Your task to perform on an android device: turn notification dots off Image 0: 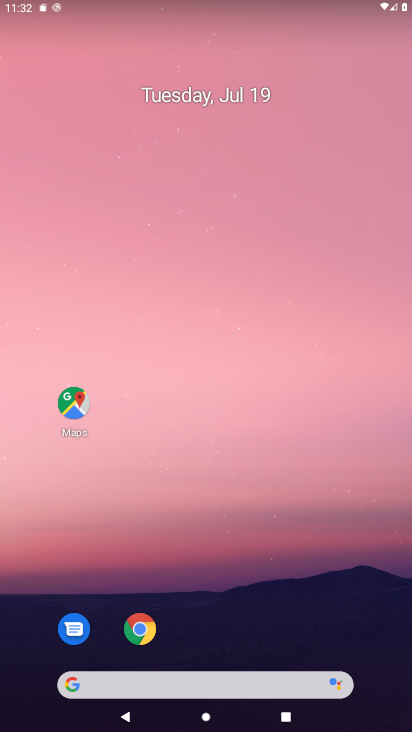
Step 0: drag from (354, 588) to (351, 105)
Your task to perform on an android device: turn notification dots off Image 1: 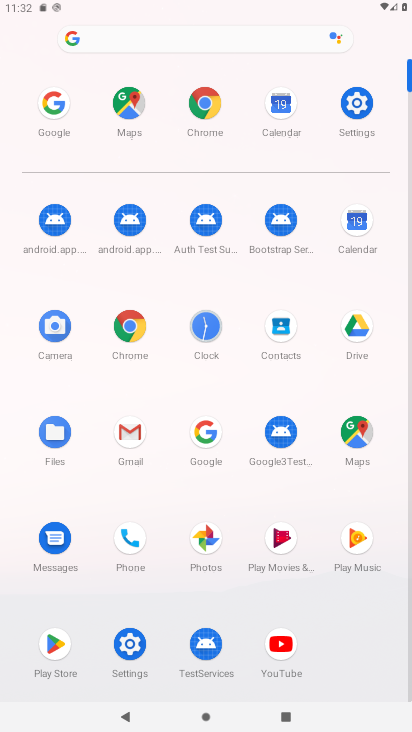
Step 1: click (362, 110)
Your task to perform on an android device: turn notification dots off Image 2: 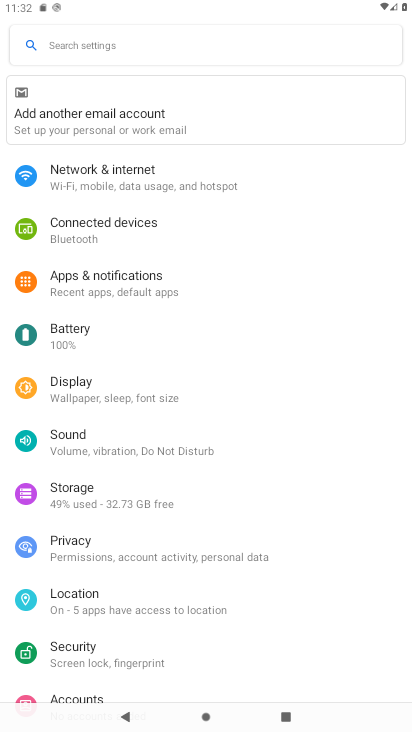
Step 2: drag from (331, 239) to (314, 378)
Your task to perform on an android device: turn notification dots off Image 3: 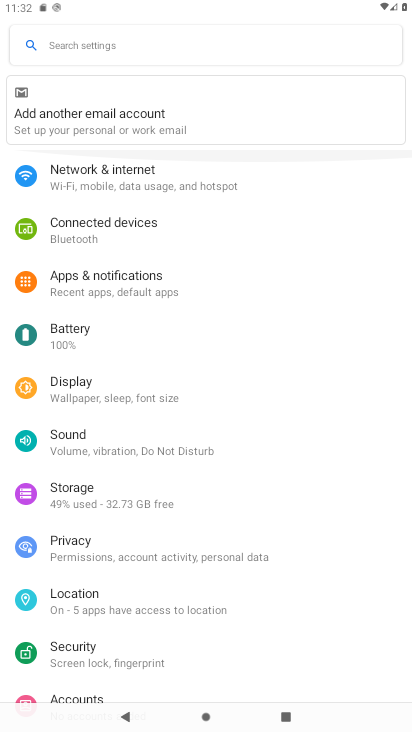
Step 3: click (173, 285)
Your task to perform on an android device: turn notification dots off Image 4: 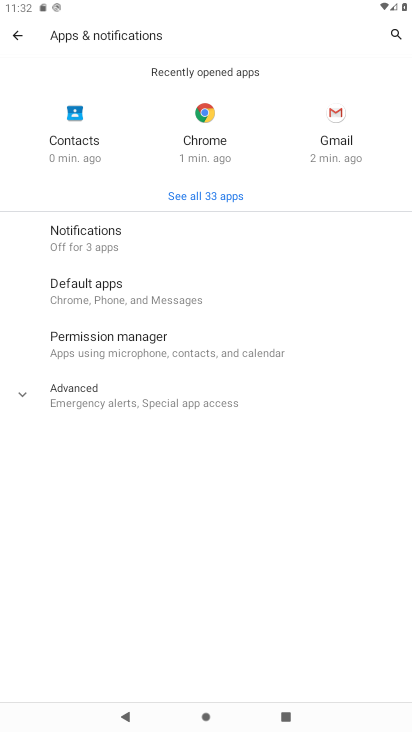
Step 4: click (158, 256)
Your task to perform on an android device: turn notification dots off Image 5: 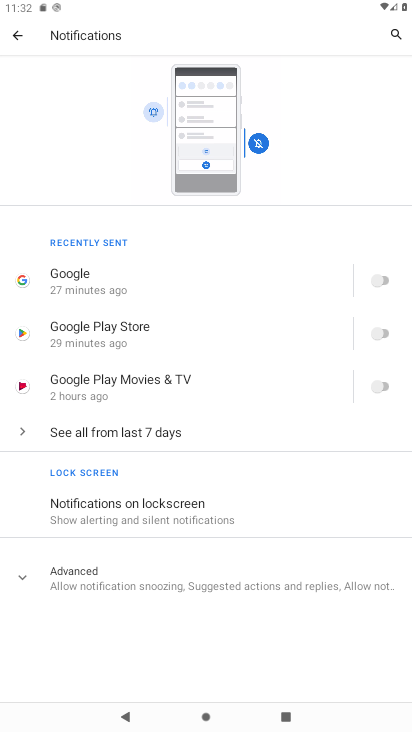
Step 5: click (239, 570)
Your task to perform on an android device: turn notification dots off Image 6: 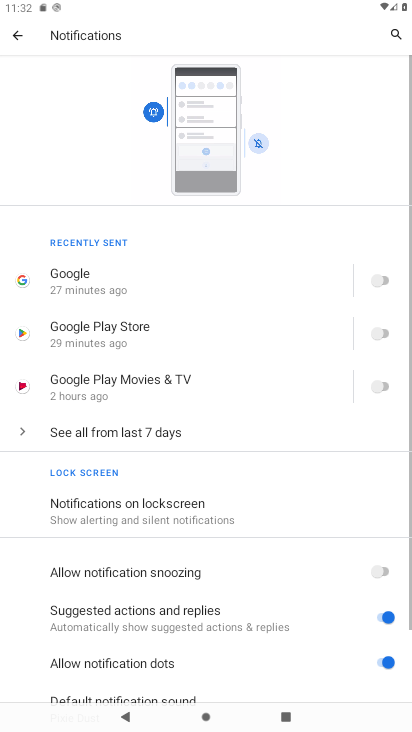
Step 6: drag from (272, 518) to (289, 381)
Your task to perform on an android device: turn notification dots off Image 7: 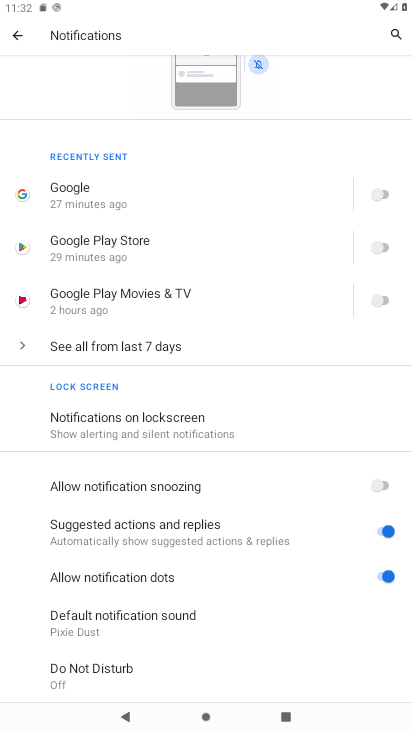
Step 7: click (383, 572)
Your task to perform on an android device: turn notification dots off Image 8: 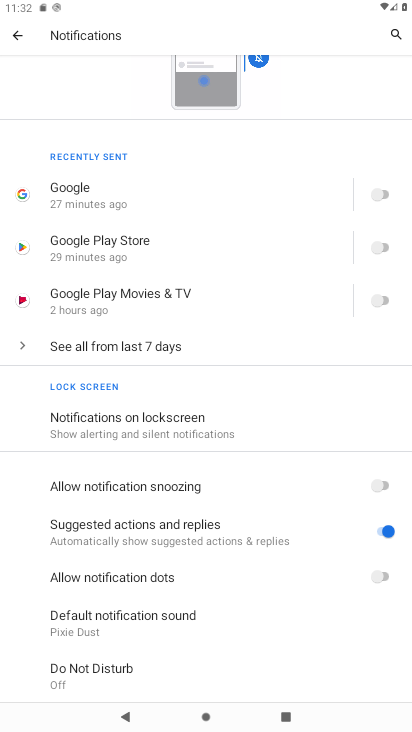
Step 8: task complete